Your task to perform on an android device: check the backup settings in the google photos Image 0: 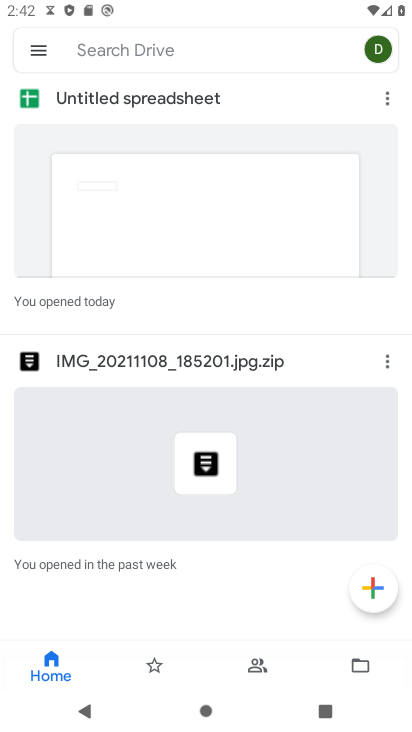
Step 0: press home button
Your task to perform on an android device: check the backup settings in the google photos Image 1: 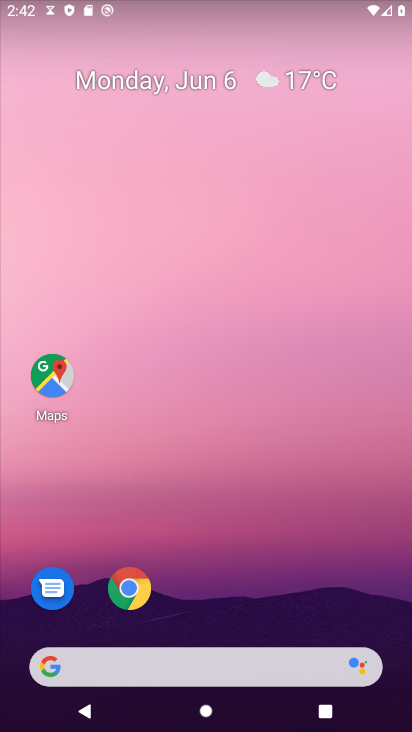
Step 1: drag from (198, 655) to (243, 208)
Your task to perform on an android device: check the backup settings in the google photos Image 2: 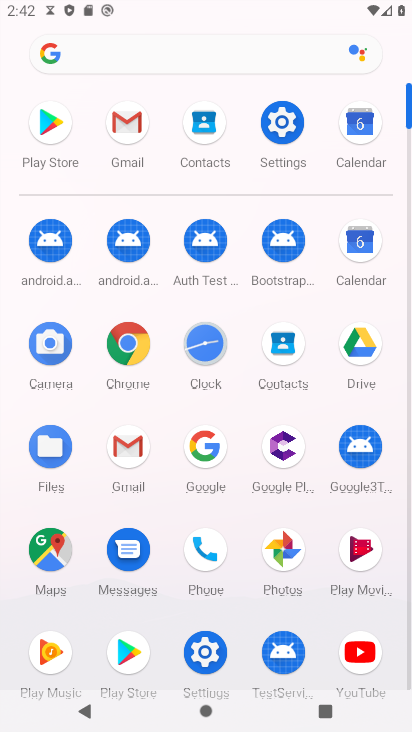
Step 2: click (301, 548)
Your task to perform on an android device: check the backup settings in the google photos Image 3: 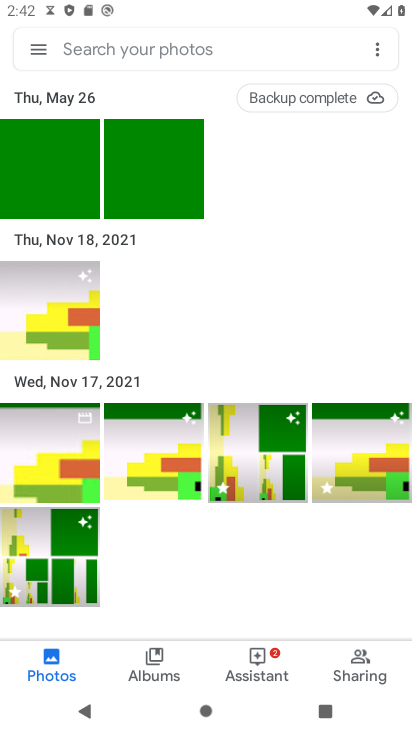
Step 3: click (40, 58)
Your task to perform on an android device: check the backup settings in the google photos Image 4: 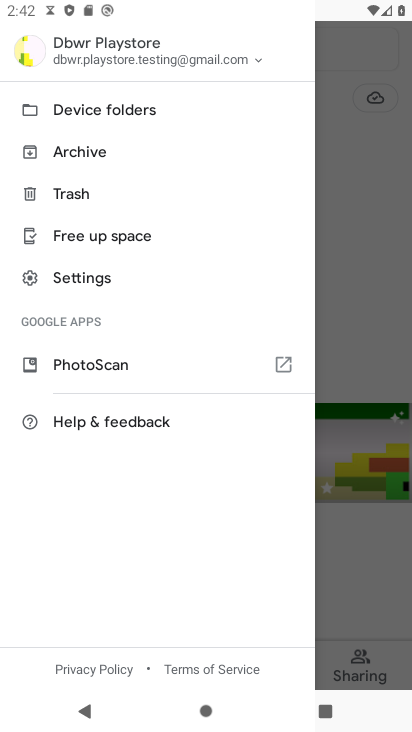
Step 4: click (90, 265)
Your task to perform on an android device: check the backup settings in the google photos Image 5: 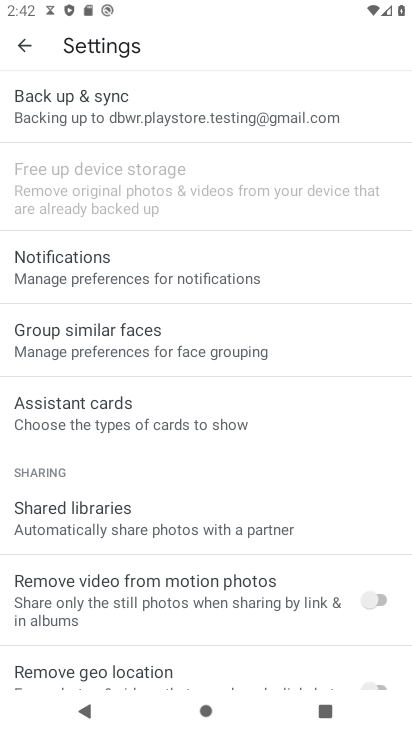
Step 5: click (97, 109)
Your task to perform on an android device: check the backup settings in the google photos Image 6: 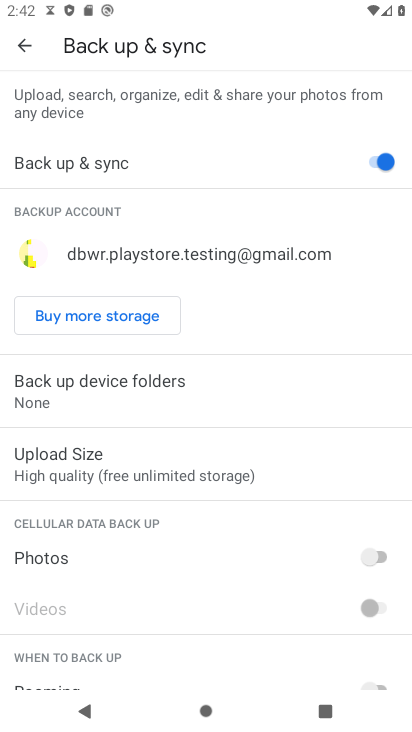
Step 6: task complete